Your task to perform on an android device: open app "eBay: The shopping marketplace" Image 0: 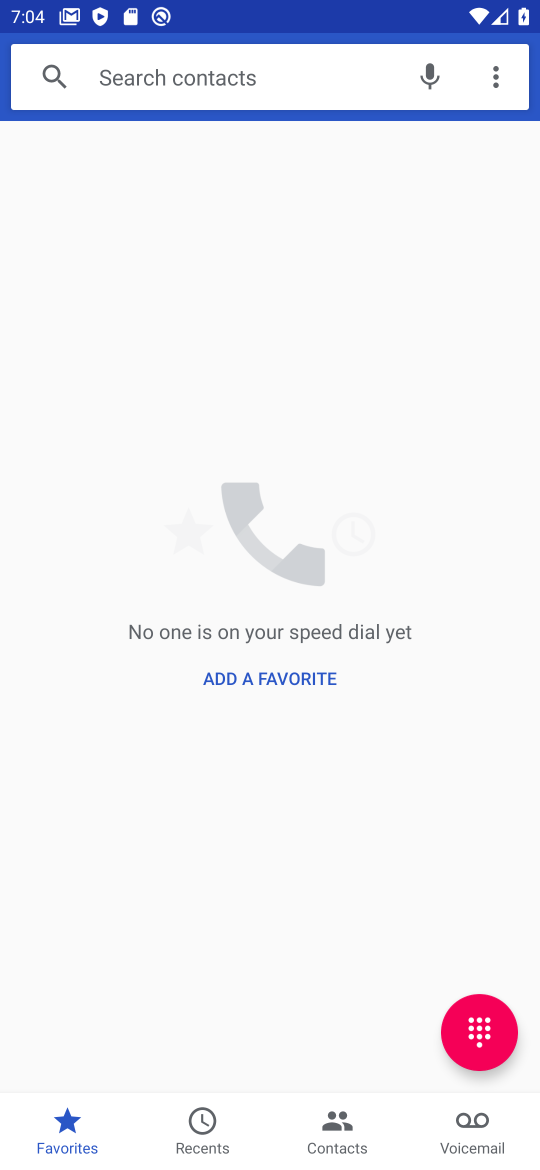
Step 0: press home button
Your task to perform on an android device: open app "eBay: The shopping marketplace" Image 1: 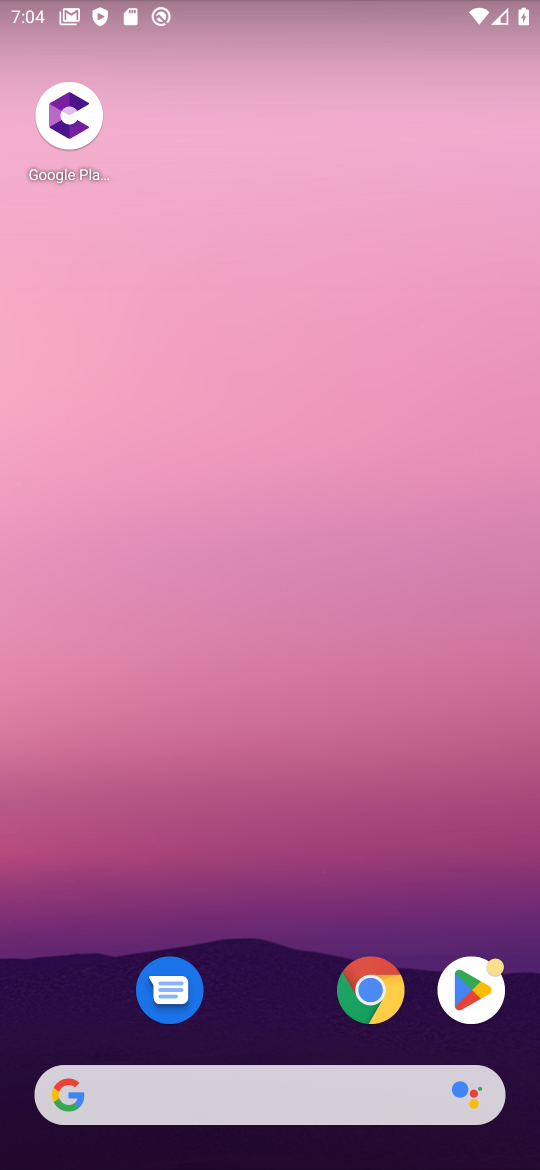
Step 1: click (474, 1016)
Your task to perform on an android device: open app "eBay: The shopping marketplace" Image 2: 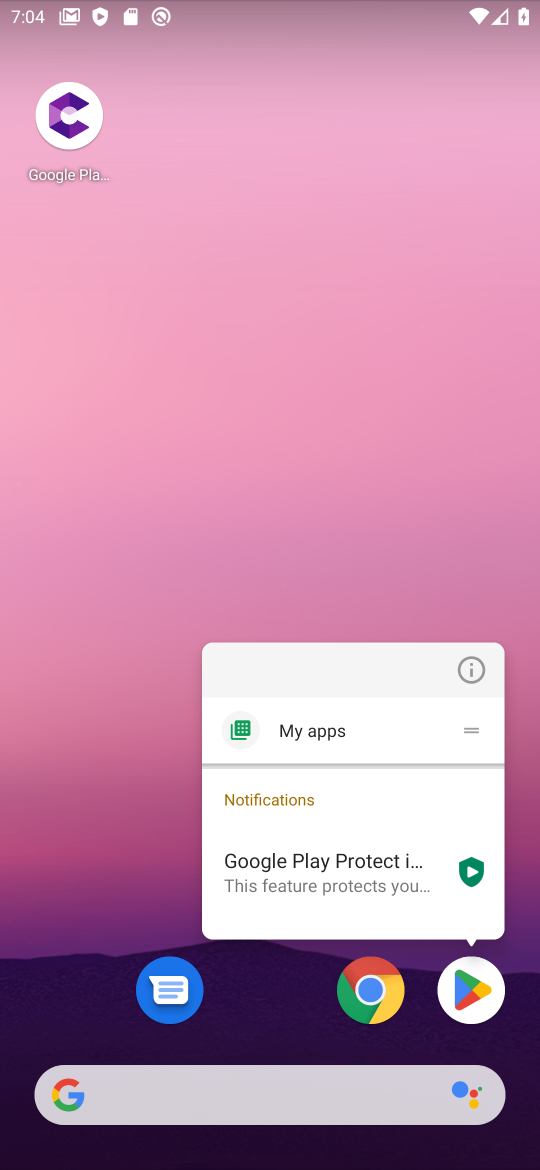
Step 2: click (466, 1007)
Your task to perform on an android device: open app "eBay: The shopping marketplace" Image 3: 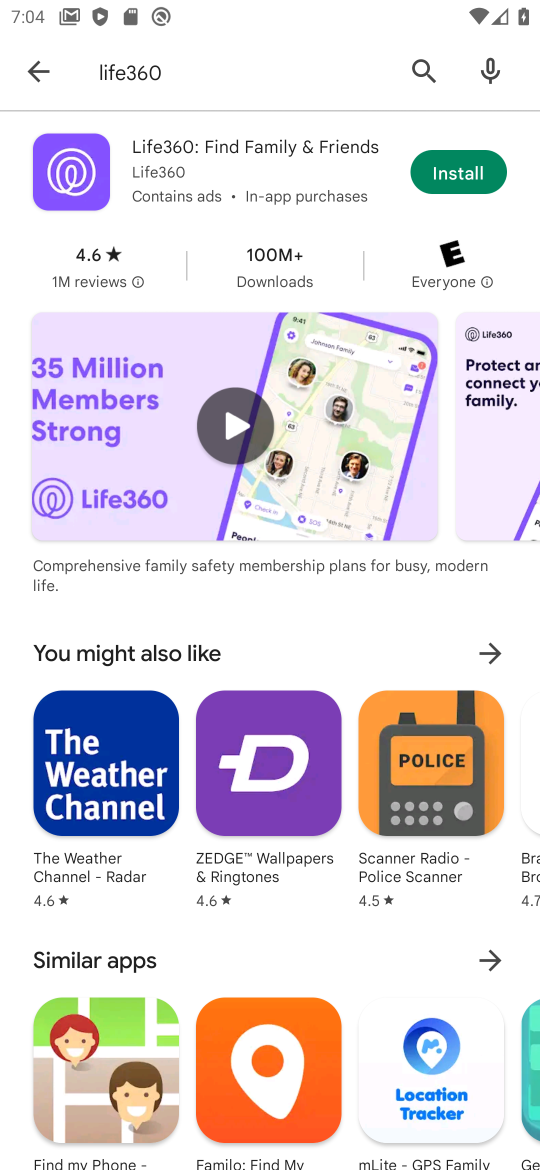
Step 3: click (418, 70)
Your task to perform on an android device: open app "eBay: The shopping marketplace" Image 4: 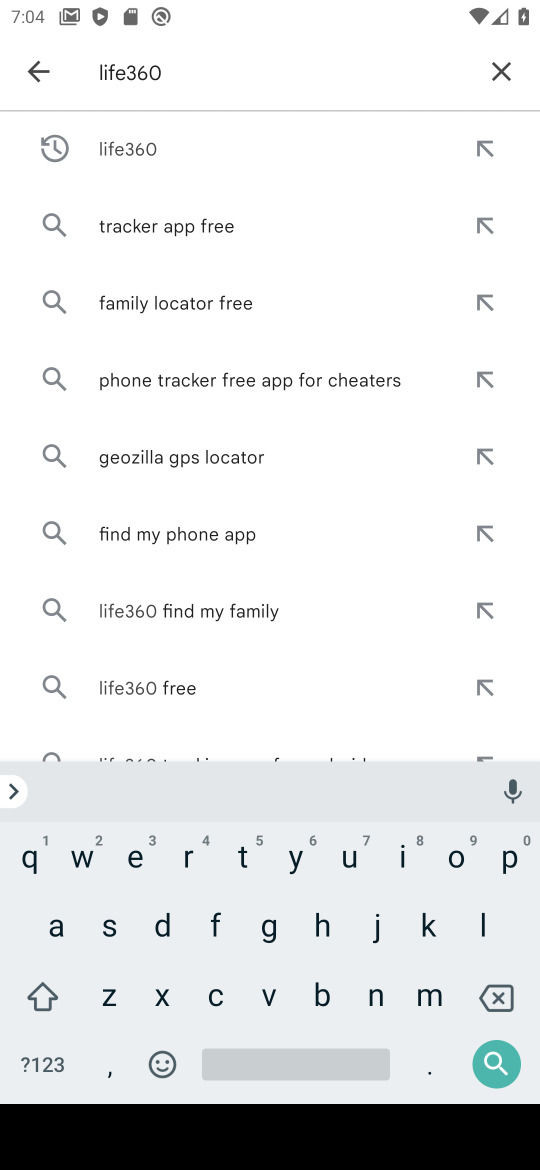
Step 4: click (501, 68)
Your task to perform on an android device: open app "eBay: The shopping marketplace" Image 5: 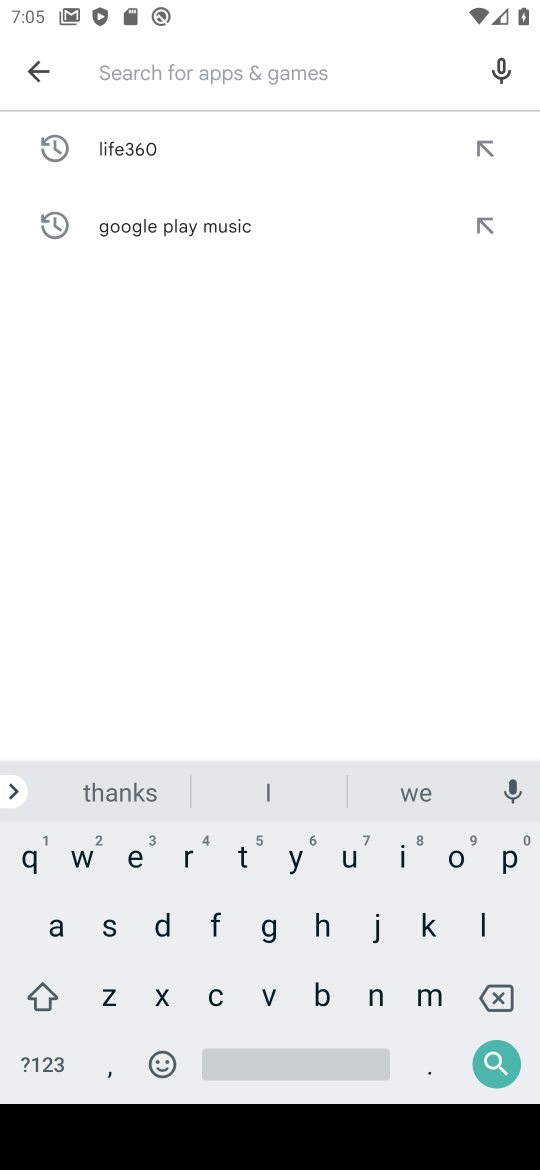
Step 5: click (131, 855)
Your task to perform on an android device: open app "eBay: The shopping marketplace" Image 6: 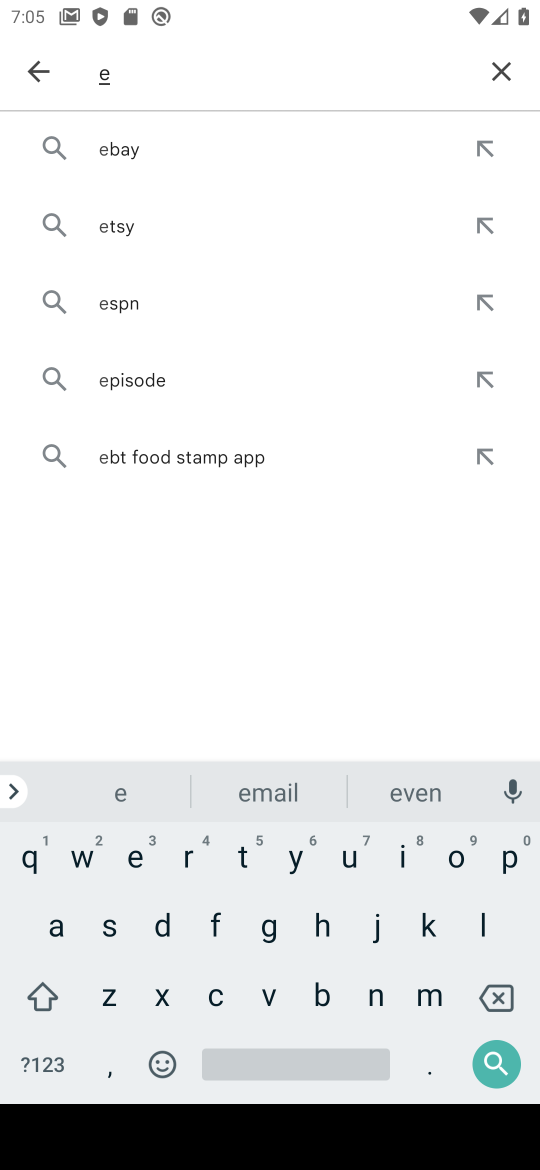
Step 6: click (146, 150)
Your task to perform on an android device: open app "eBay: The shopping marketplace" Image 7: 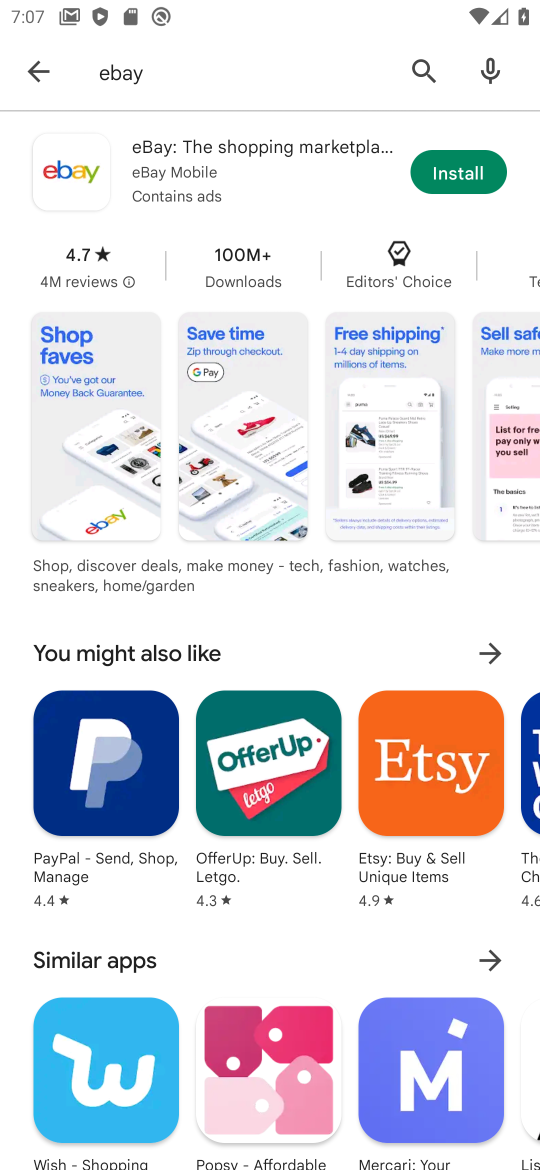
Step 7: task complete